Your task to perform on an android device: Go to sound settings Image 0: 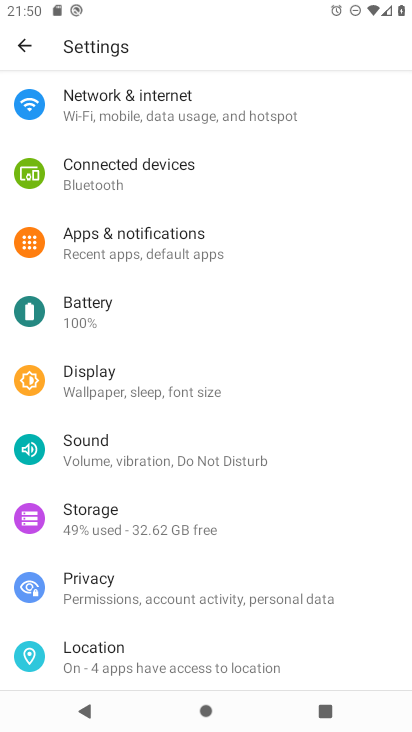
Step 0: click (135, 445)
Your task to perform on an android device: Go to sound settings Image 1: 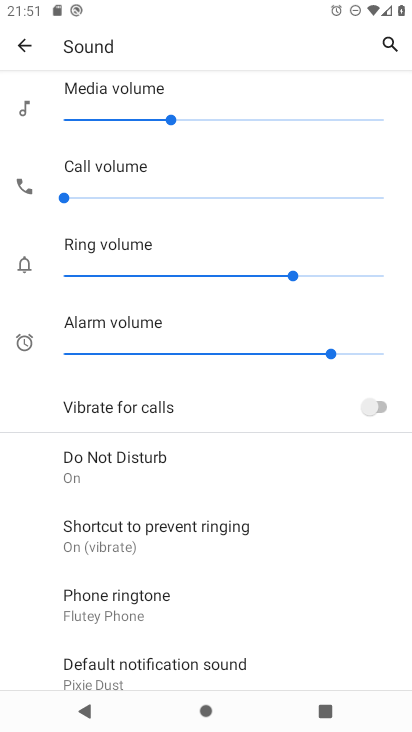
Step 1: task complete